Your task to perform on an android device: Toggle the flashlight Image 0: 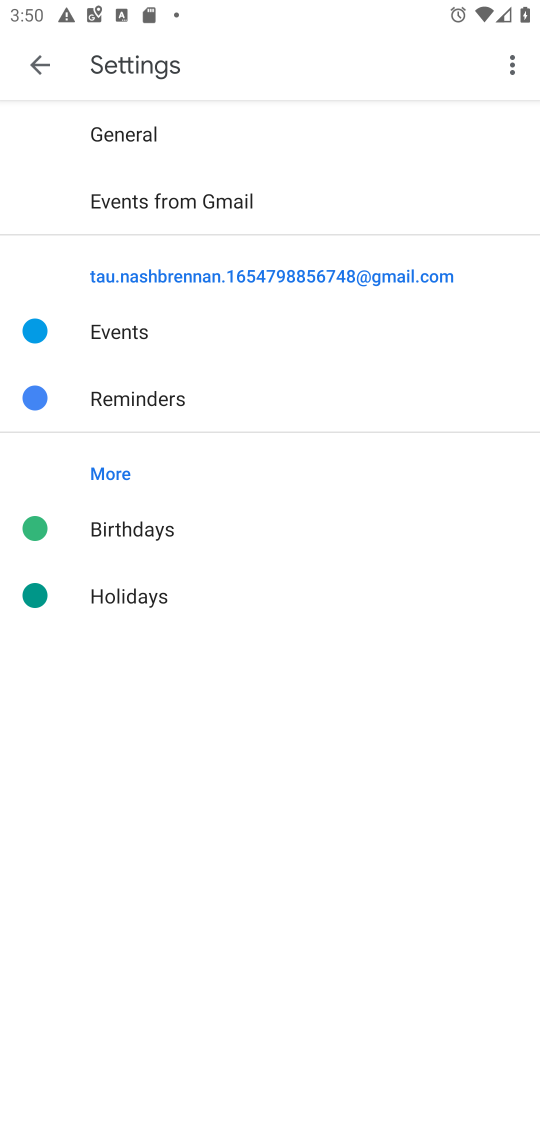
Step 0: press home button
Your task to perform on an android device: Toggle the flashlight Image 1: 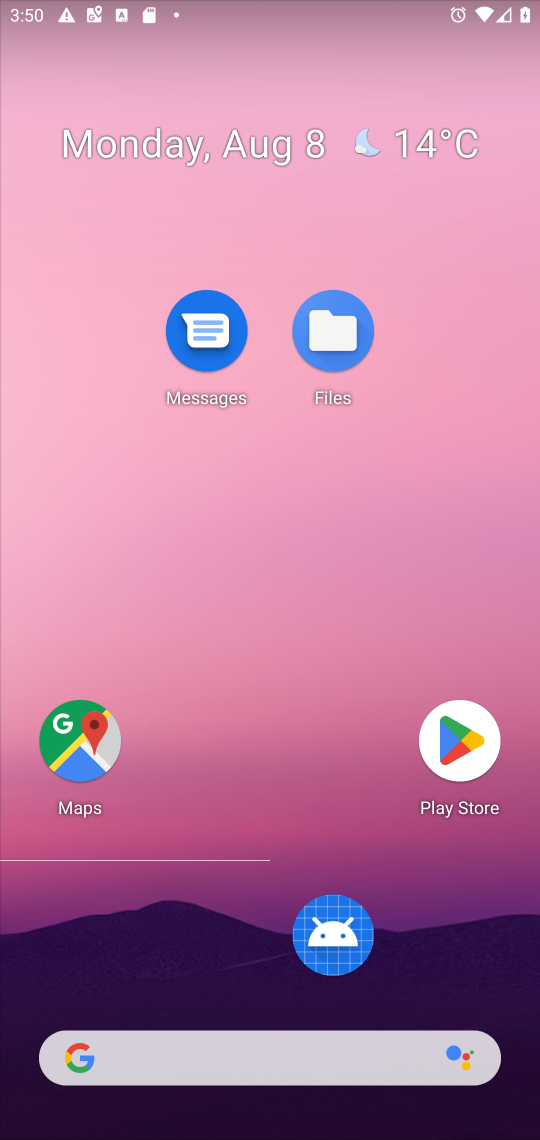
Step 1: task complete